Your task to perform on an android device: Open Reddit.com Image 0: 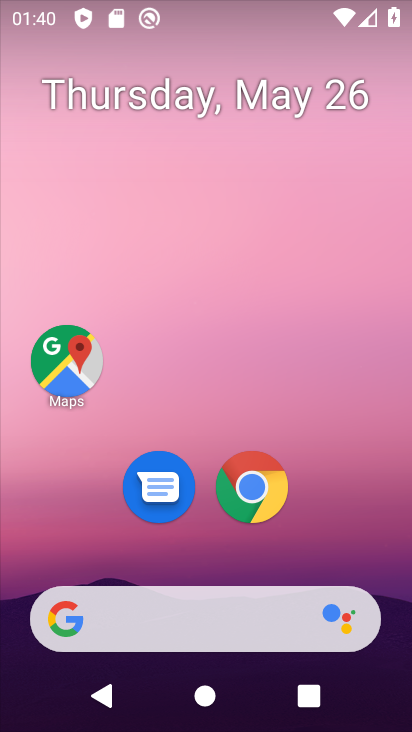
Step 0: click (253, 467)
Your task to perform on an android device: Open Reddit.com Image 1: 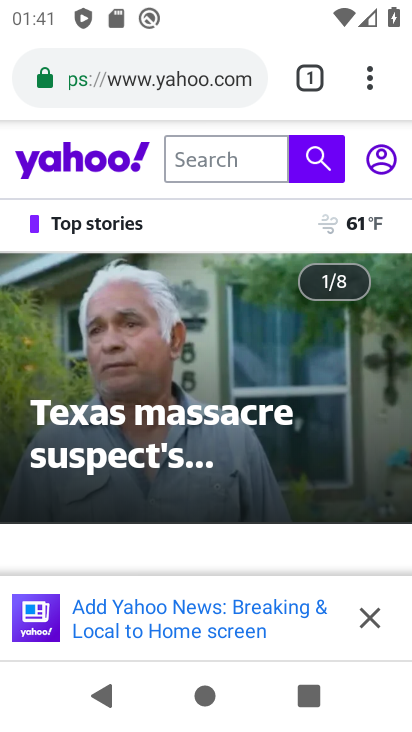
Step 1: click (178, 76)
Your task to perform on an android device: Open Reddit.com Image 2: 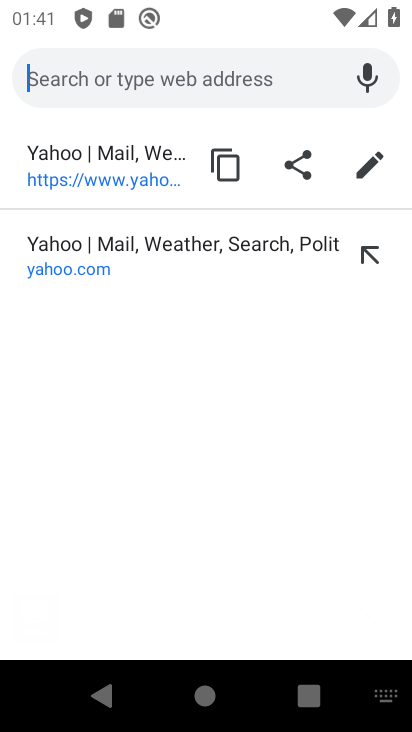
Step 2: type "reddit.com"
Your task to perform on an android device: Open Reddit.com Image 3: 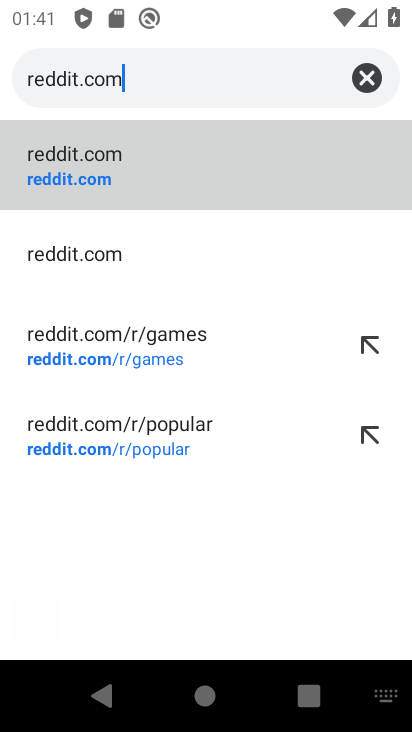
Step 3: click (173, 183)
Your task to perform on an android device: Open Reddit.com Image 4: 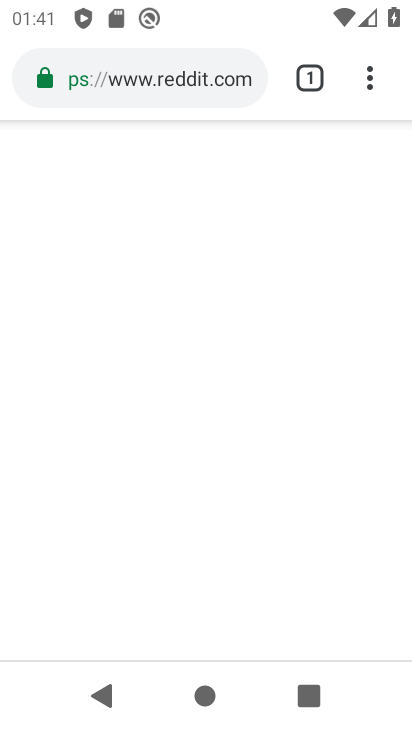
Step 4: task complete